Your task to perform on an android device: Open maps Image 0: 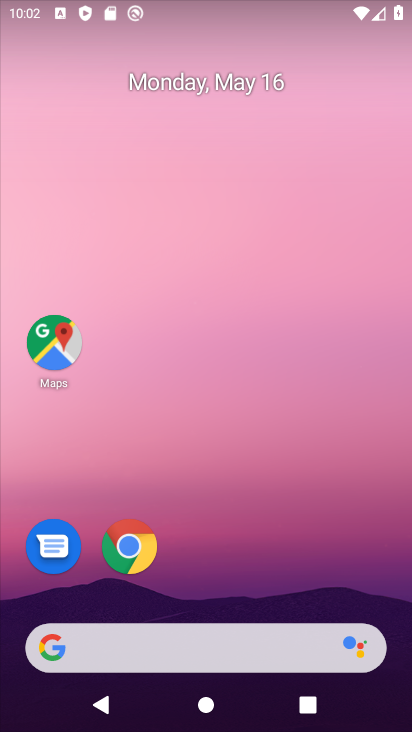
Step 0: click (47, 352)
Your task to perform on an android device: Open maps Image 1: 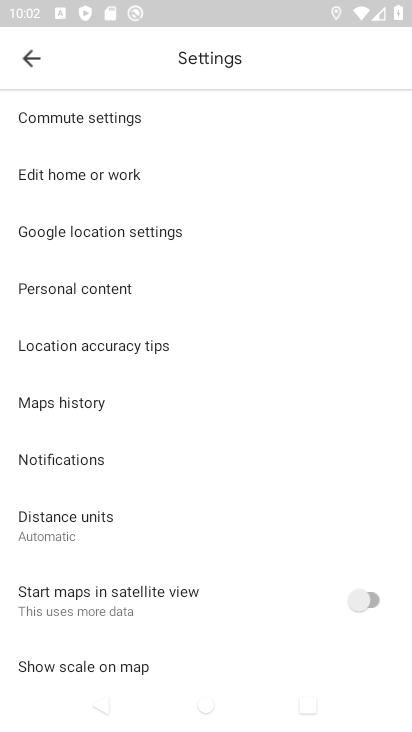
Step 1: press home button
Your task to perform on an android device: Open maps Image 2: 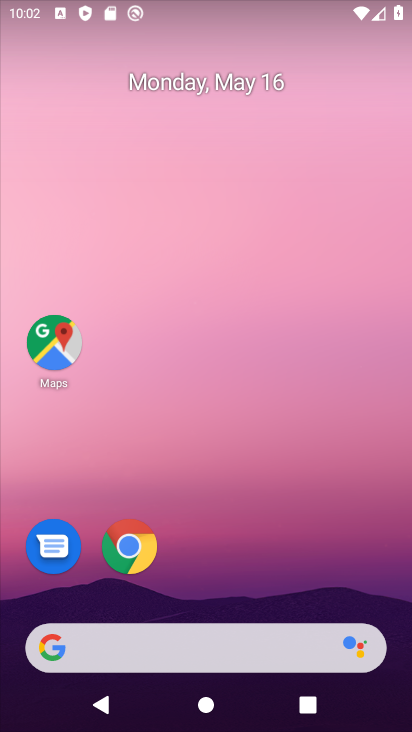
Step 2: click (65, 344)
Your task to perform on an android device: Open maps Image 3: 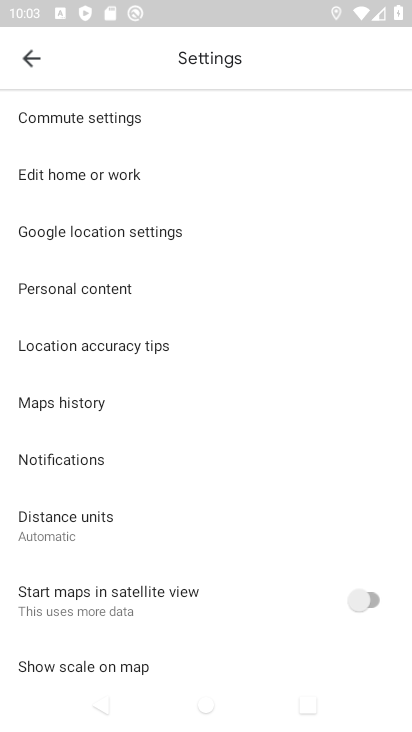
Step 3: click (39, 51)
Your task to perform on an android device: Open maps Image 4: 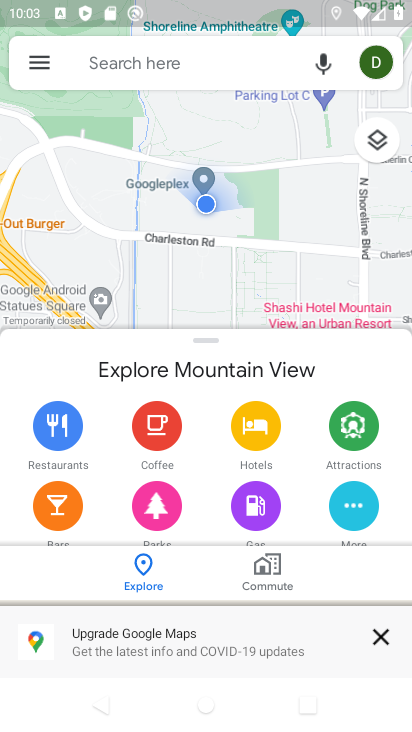
Step 4: task complete